Your task to perform on an android device: Show me popular videos on Youtube Image 0: 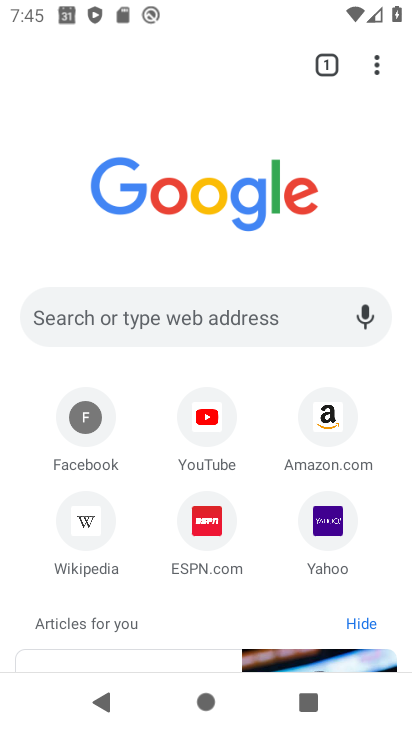
Step 0: press home button
Your task to perform on an android device: Show me popular videos on Youtube Image 1: 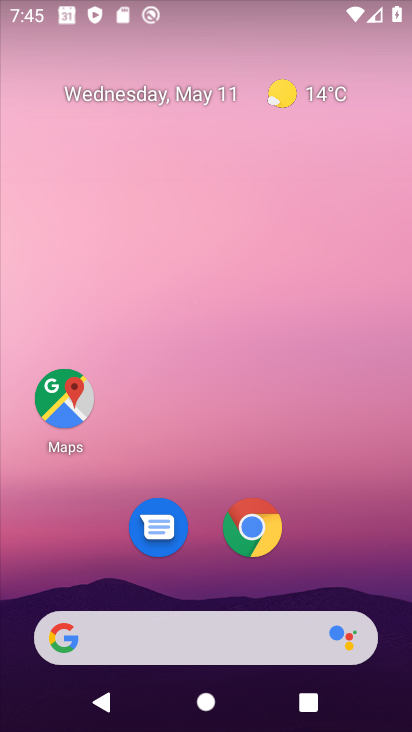
Step 1: drag from (194, 580) to (262, 100)
Your task to perform on an android device: Show me popular videos on Youtube Image 2: 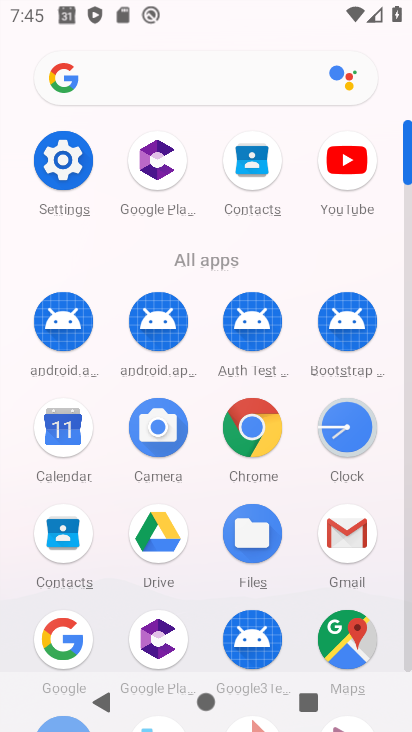
Step 2: click (355, 158)
Your task to perform on an android device: Show me popular videos on Youtube Image 3: 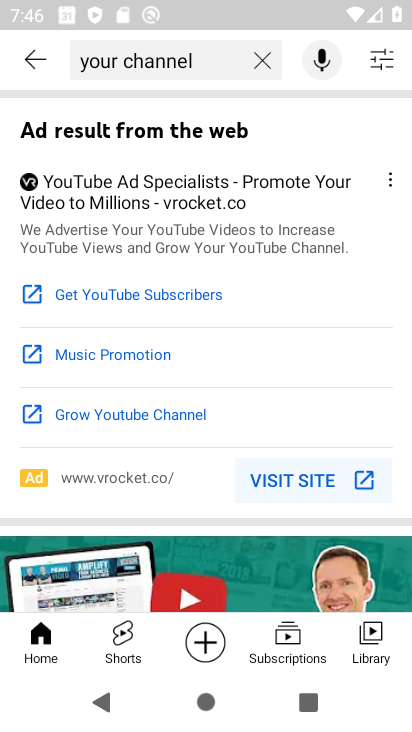
Step 3: click (25, 641)
Your task to perform on an android device: Show me popular videos on Youtube Image 4: 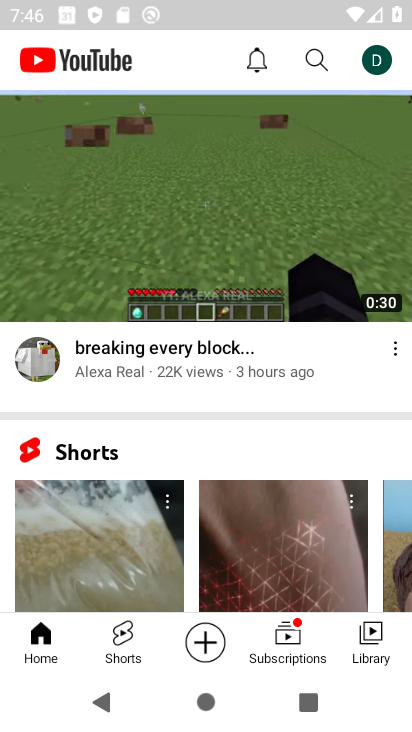
Step 4: drag from (135, 125) to (209, 557)
Your task to perform on an android device: Show me popular videos on Youtube Image 5: 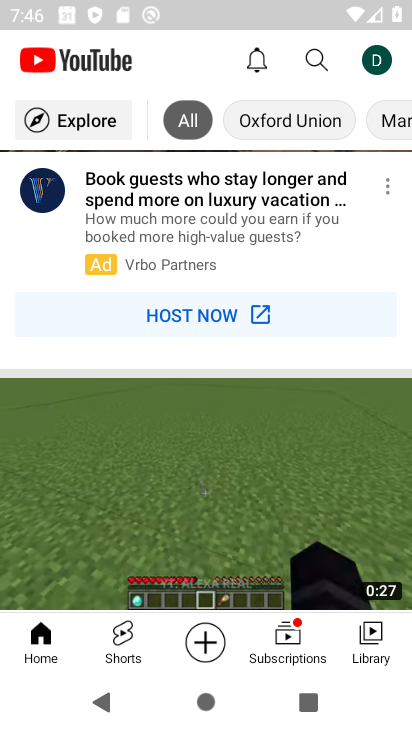
Step 5: drag from (151, 188) to (167, 540)
Your task to perform on an android device: Show me popular videos on Youtube Image 6: 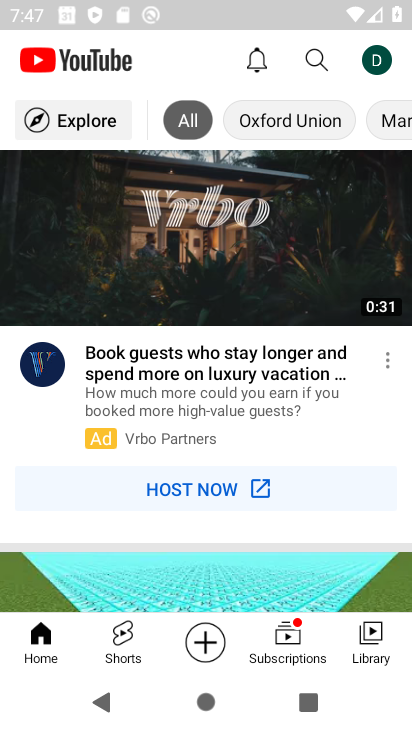
Step 6: click (81, 81)
Your task to perform on an android device: Show me popular videos on Youtube Image 7: 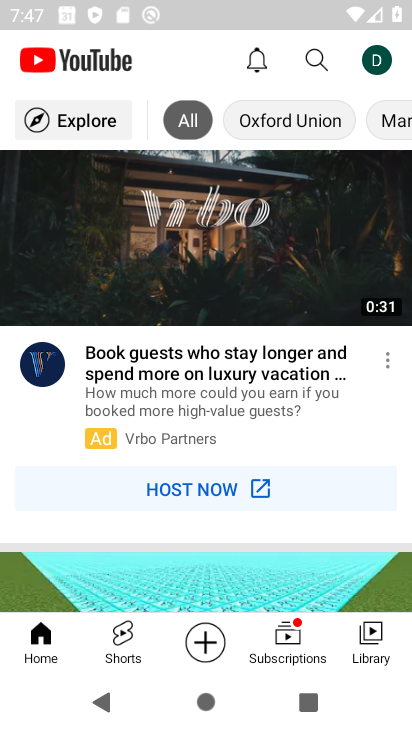
Step 7: click (78, 118)
Your task to perform on an android device: Show me popular videos on Youtube Image 8: 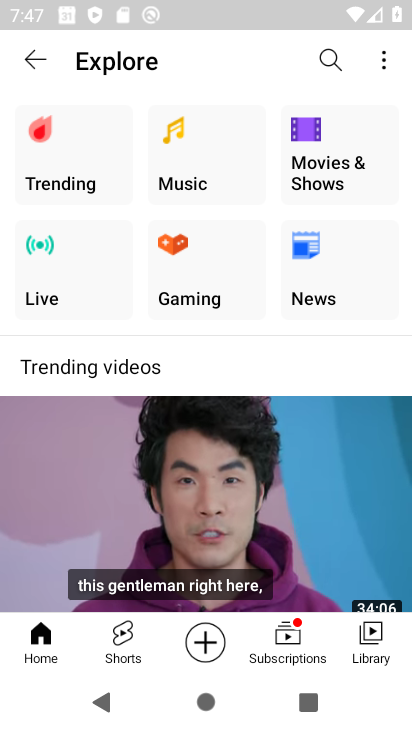
Step 8: click (82, 184)
Your task to perform on an android device: Show me popular videos on Youtube Image 9: 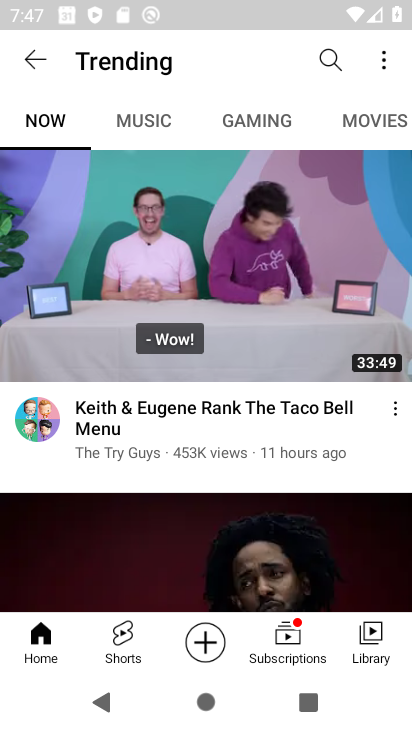
Step 9: task complete